Your task to perform on an android device: check google app version Image 0: 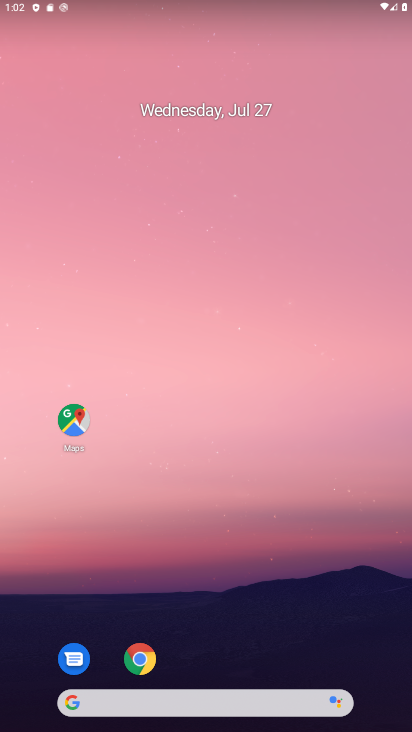
Step 0: drag from (317, 628) to (171, 0)
Your task to perform on an android device: check google app version Image 1: 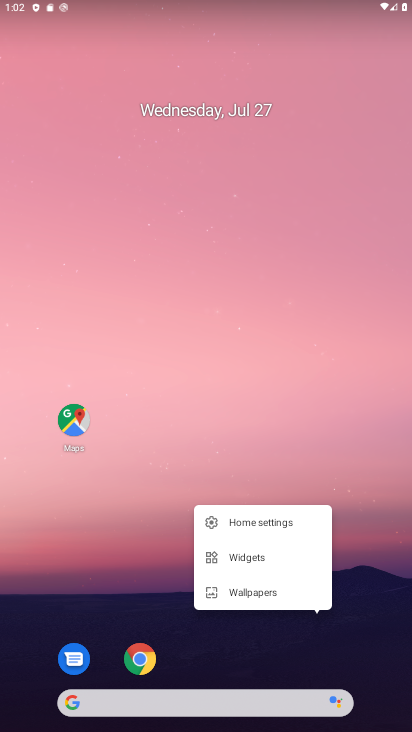
Step 1: click (291, 428)
Your task to perform on an android device: check google app version Image 2: 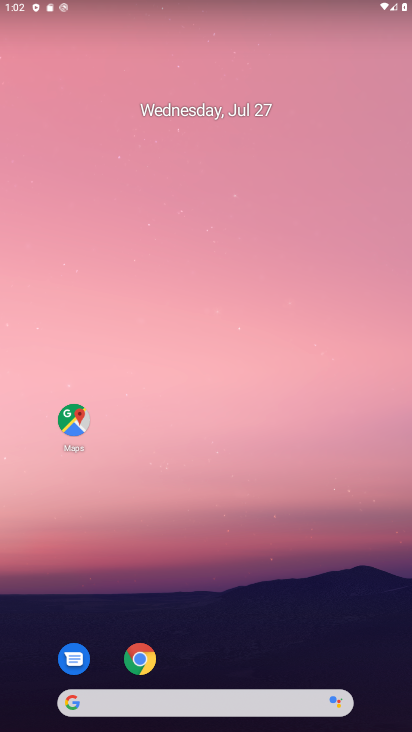
Step 2: drag from (266, 635) to (223, 93)
Your task to perform on an android device: check google app version Image 3: 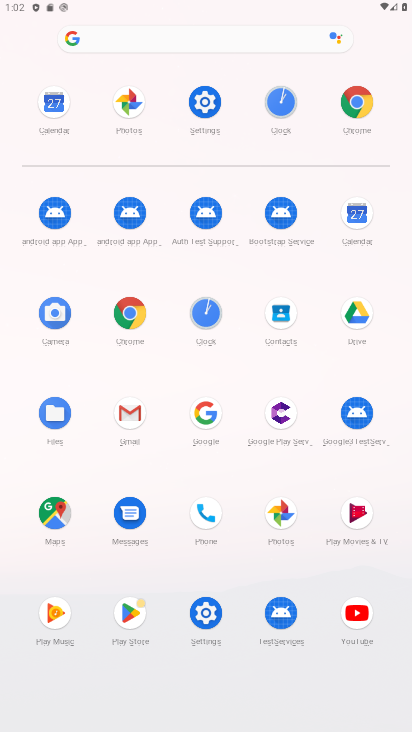
Step 3: click (202, 427)
Your task to perform on an android device: check google app version Image 4: 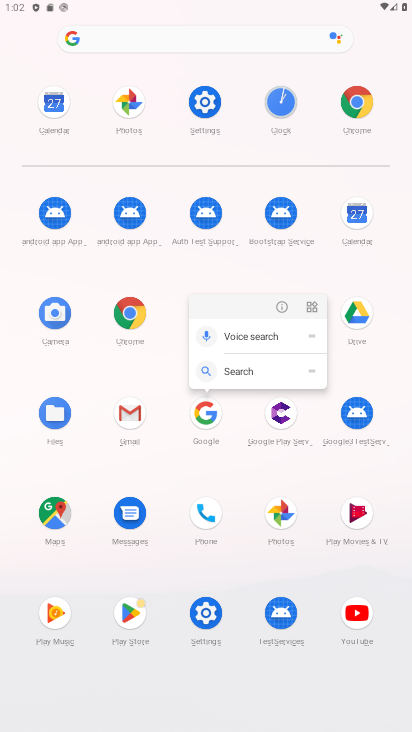
Step 4: click (281, 309)
Your task to perform on an android device: check google app version Image 5: 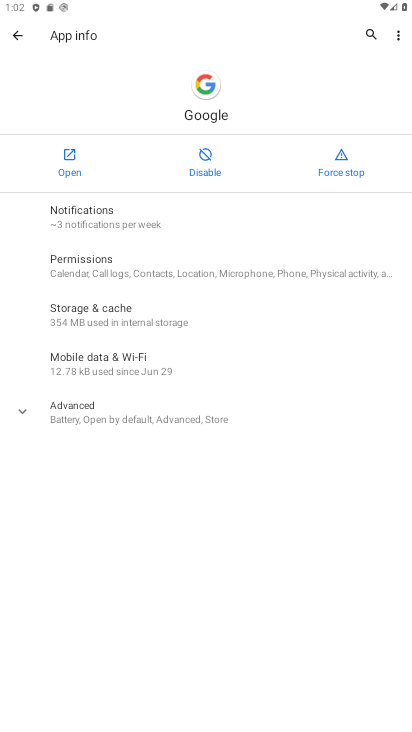
Step 5: click (136, 418)
Your task to perform on an android device: check google app version Image 6: 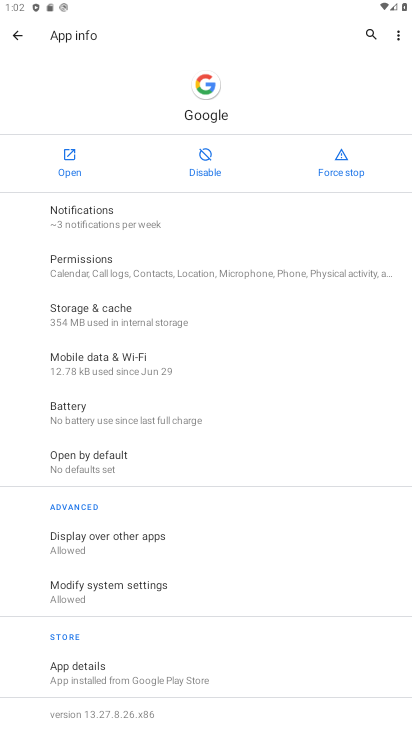
Step 6: task complete